Your task to perform on an android device: Open privacy settings Image 0: 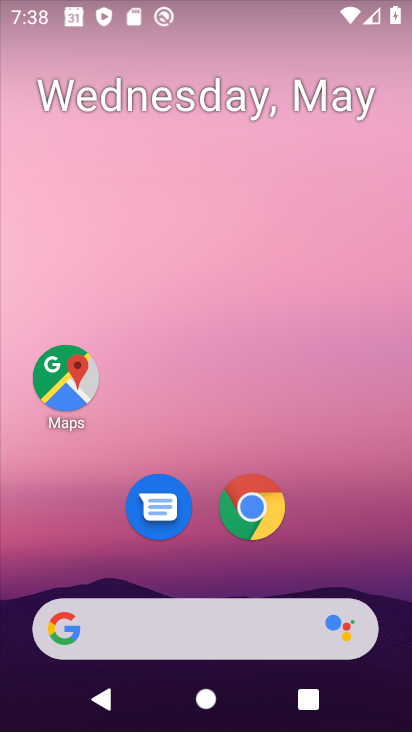
Step 0: drag from (335, 542) to (301, 277)
Your task to perform on an android device: Open privacy settings Image 1: 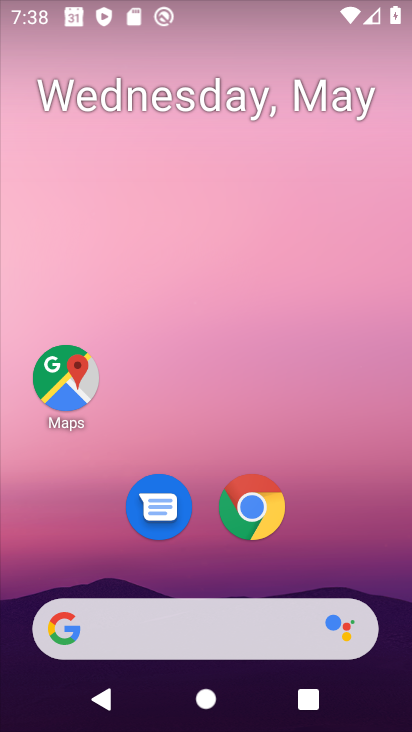
Step 1: drag from (297, 374) to (301, 98)
Your task to perform on an android device: Open privacy settings Image 2: 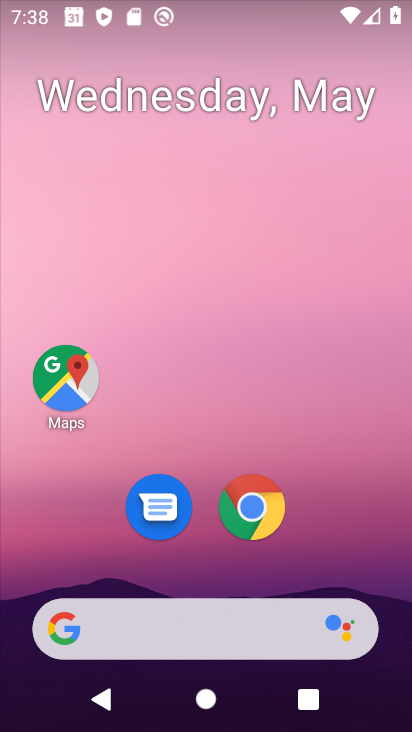
Step 2: drag from (214, 589) to (209, 174)
Your task to perform on an android device: Open privacy settings Image 3: 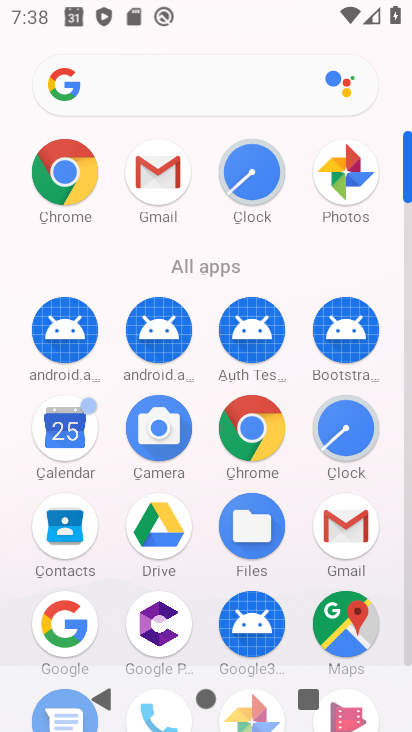
Step 3: drag from (190, 590) to (196, 168)
Your task to perform on an android device: Open privacy settings Image 4: 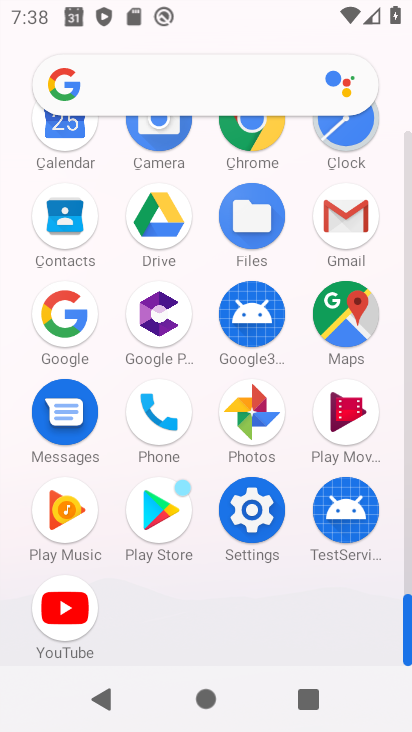
Step 4: click (228, 528)
Your task to perform on an android device: Open privacy settings Image 5: 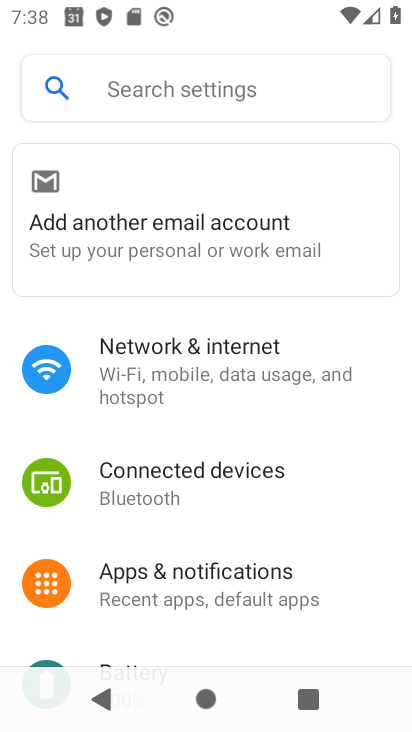
Step 5: drag from (201, 541) to (223, 154)
Your task to perform on an android device: Open privacy settings Image 6: 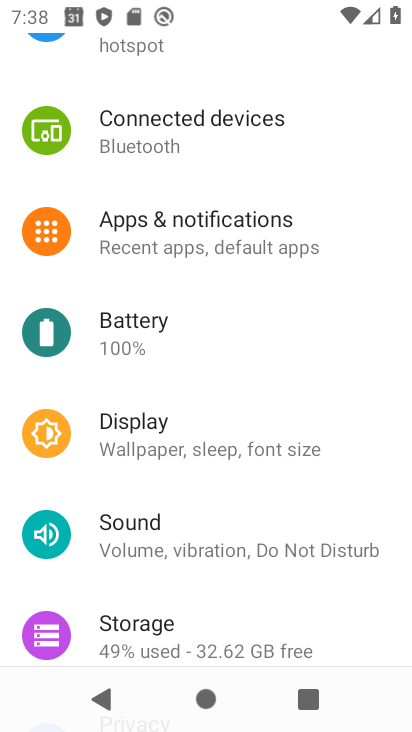
Step 6: drag from (189, 526) to (226, 264)
Your task to perform on an android device: Open privacy settings Image 7: 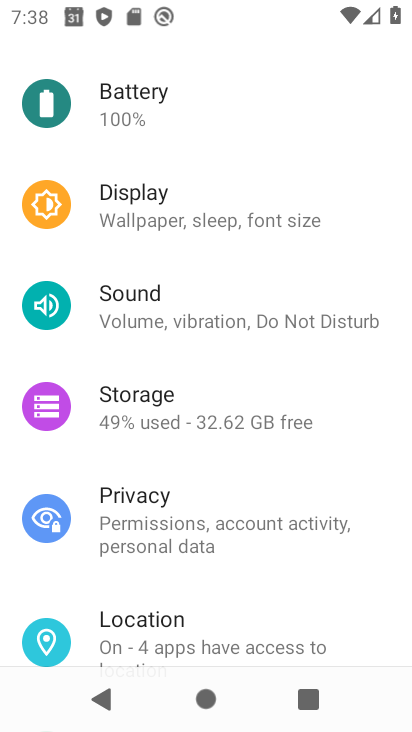
Step 7: click (182, 526)
Your task to perform on an android device: Open privacy settings Image 8: 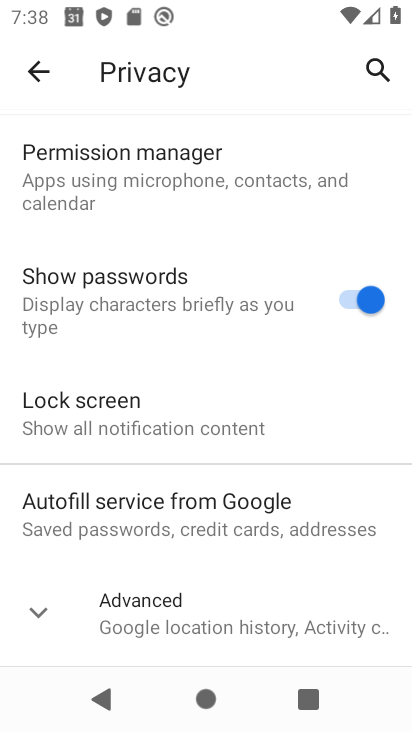
Step 8: task complete